Your task to perform on an android device: Is it going to rain this weekend? Image 0: 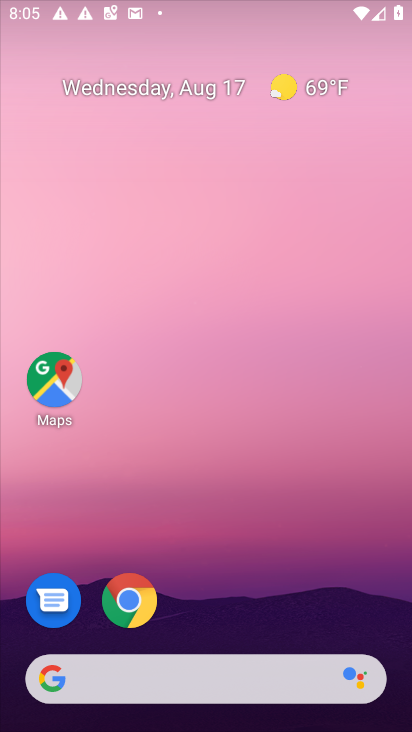
Step 0: press home button
Your task to perform on an android device: Is it going to rain this weekend? Image 1: 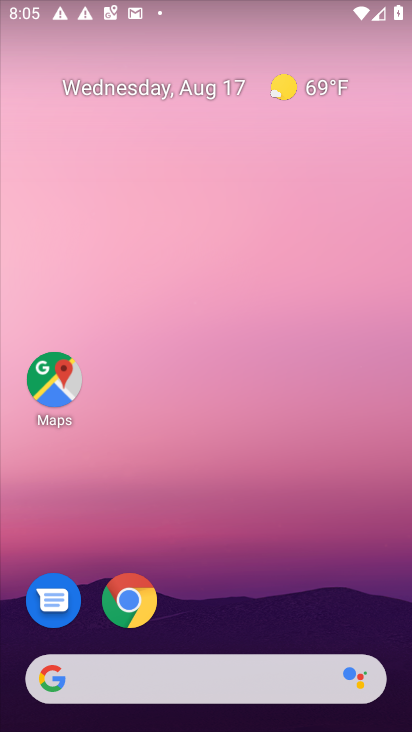
Step 1: click (41, 685)
Your task to perform on an android device: Is it going to rain this weekend? Image 2: 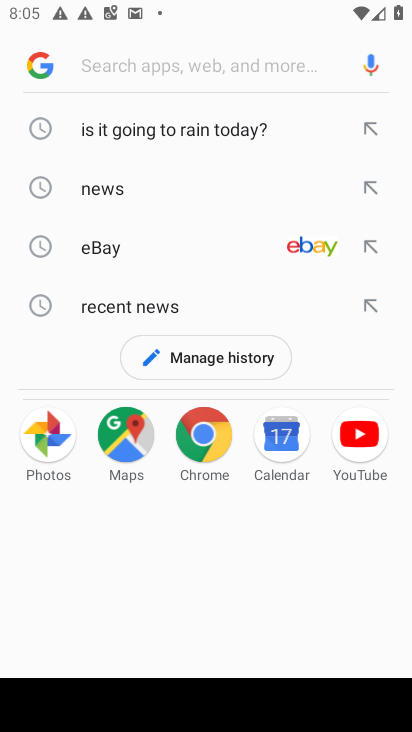
Step 2: type "Is it going to rain this weekend?"
Your task to perform on an android device: Is it going to rain this weekend? Image 3: 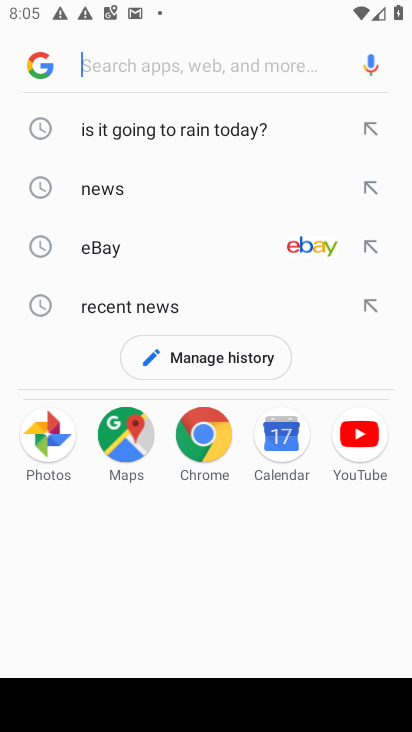
Step 3: click (190, 64)
Your task to perform on an android device: Is it going to rain this weekend? Image 4: 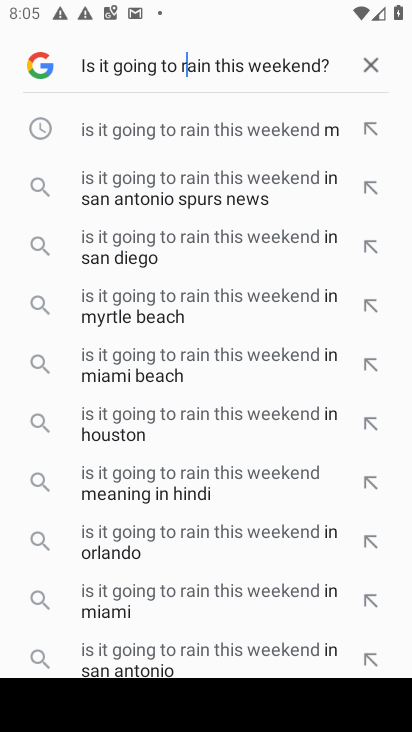
Step 4: press enter
Your task to perform on an android device: Is it going to rain this weekend? Image 5: 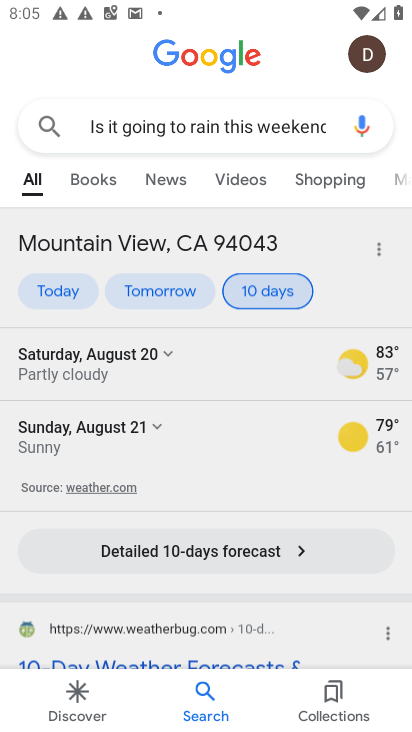
Step 5: task complete